Your task to perform on an android device: find photos in the google photos app Image 0: 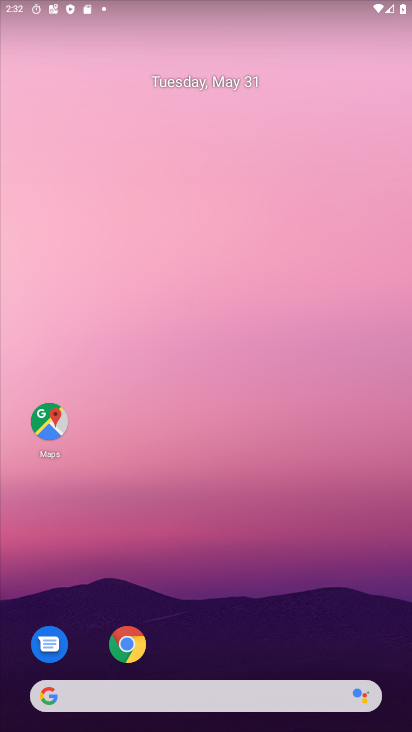
Step 0: drag from (394, 700) to (346, 148)
Your task to perform on an android device: find photos in the google photos app Image 1: 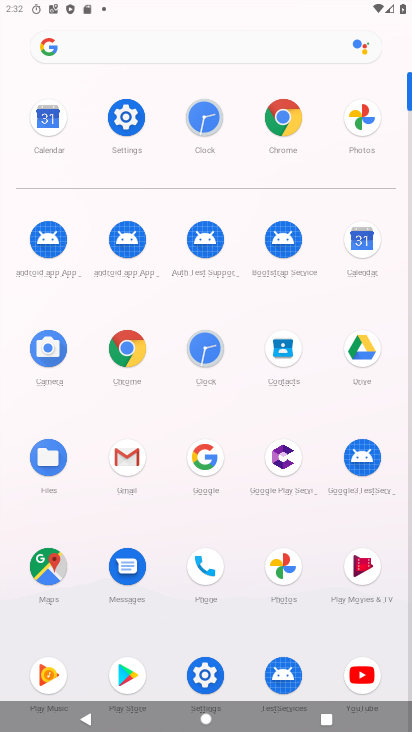
Step 1: click (272, 567)
Your task to perform on an android device: find photos in the google photos app Image 2: 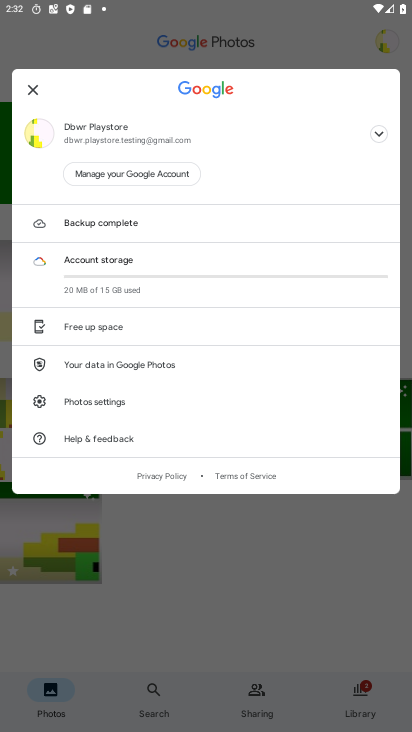
Step 2: click (32, 95)
Your task to perform on an android device: find photos in the google photos app Image 3: 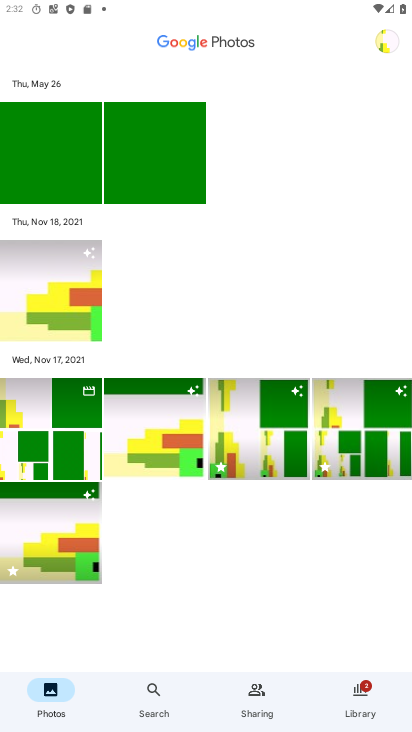
Step 3: click (56, 422)
Your task to perform on an android device: find photos in the google photos app Image 4: 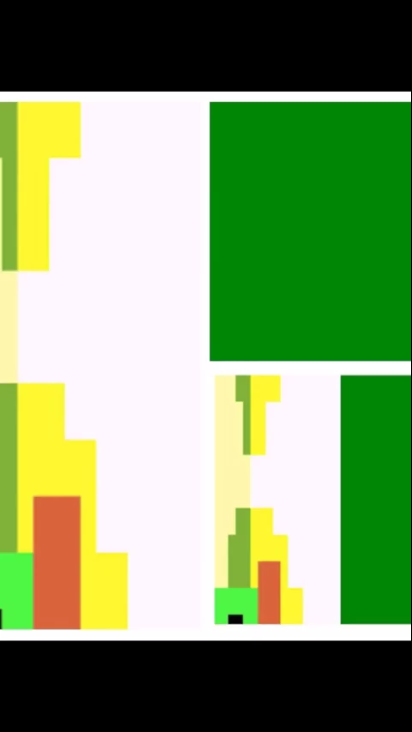
Step 4: task complete